Your task to perform on an android device: open app "Move to iOS" Image 0: 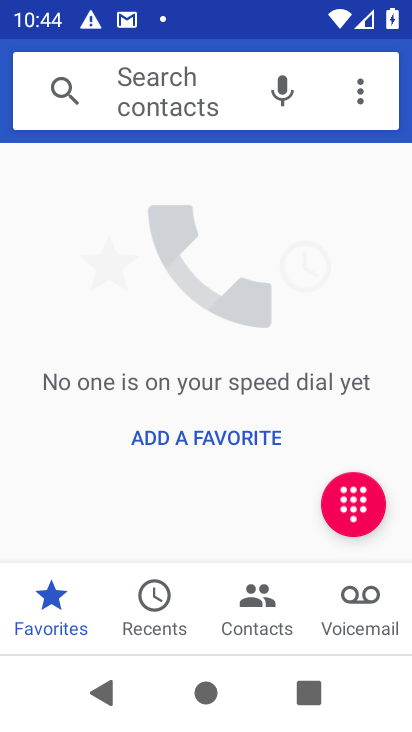
Step 0: press home button
Your task to perform on an android device: open app "Move to iOS" Image 1: 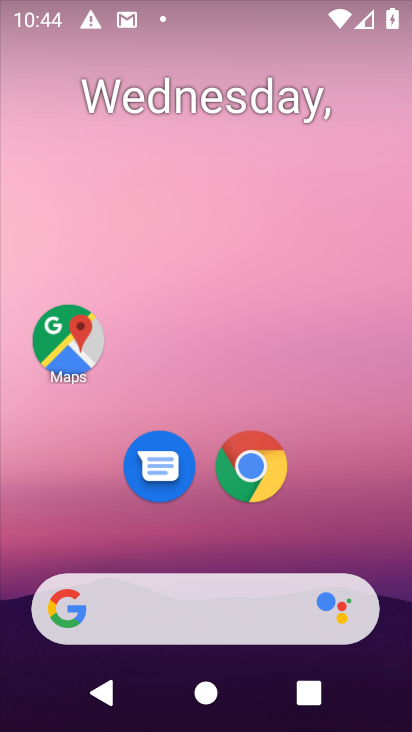
Step 1: task complete